Your task to perform on an android device: Open privacy settings Image 0: 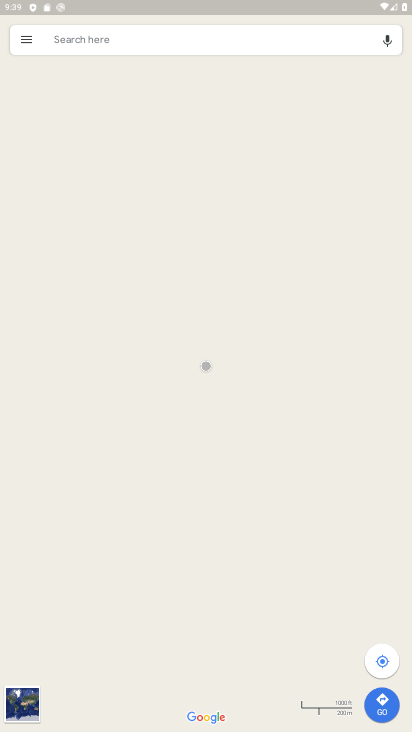
Step 0: press home button
Your task to perform on an android device: Open privacy settings Image 1: 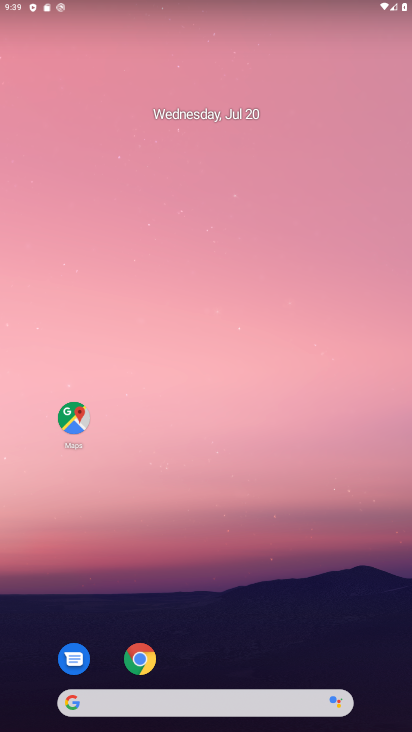
Step 1: drag from (283, 594) to (309, 145)
Your task to perform on an android device: Open privacy settings Image 2: 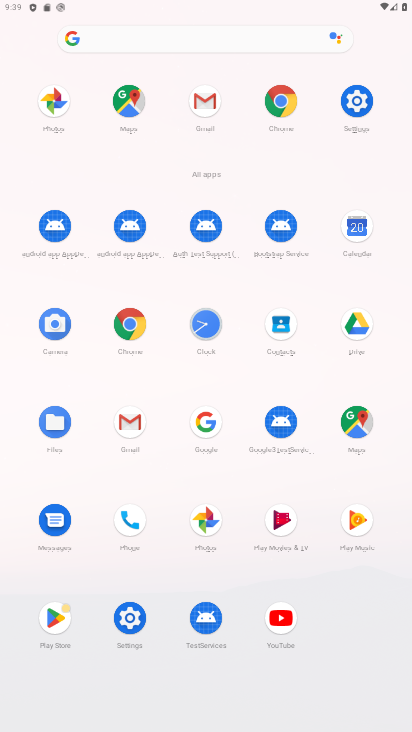
Step 2: click (363, 111)
Your task to perform on an android device: Open privacy settings Image 3: 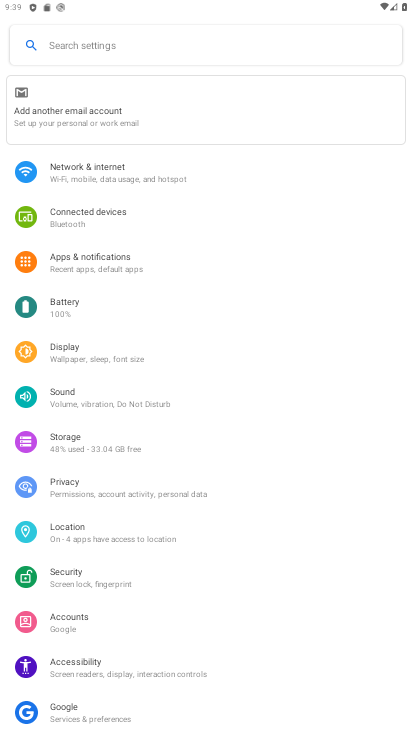
Step 3: click (221, 481)
Your task to perform on an android device: Open privacy settings Image 4: 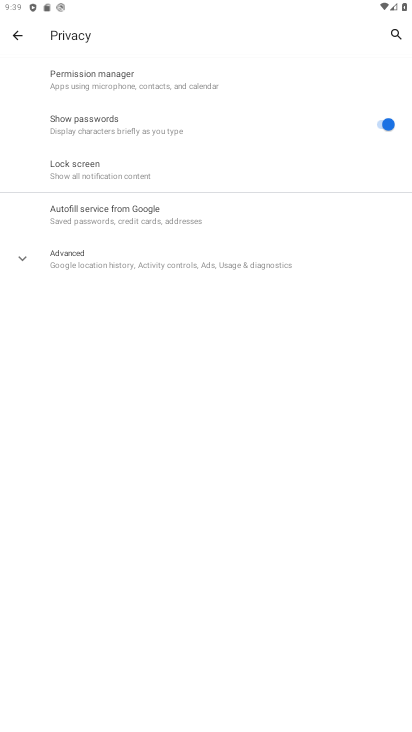
Step 4: task complete